Your task to perform on an android device: toggle wifi Image 0: 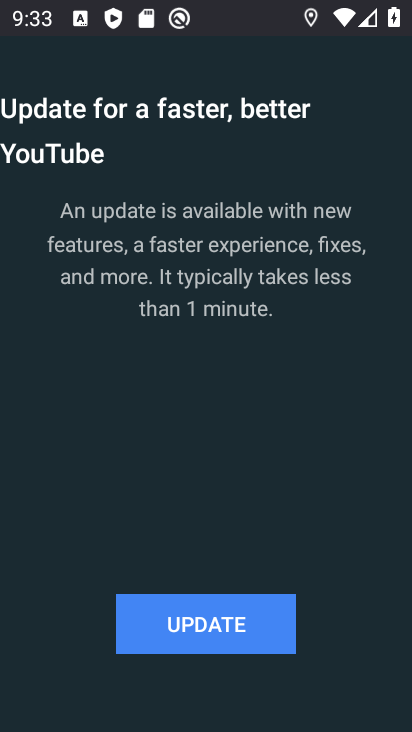
Step 0: press home button
Your task to perform on an android device: toggle wifi Image 1: 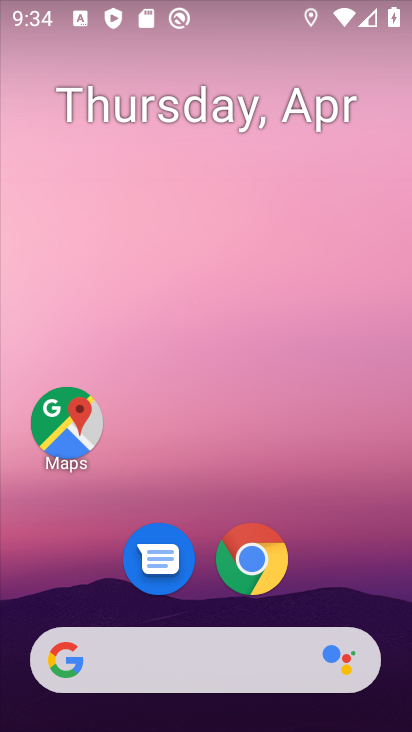
Step 1: drag from (230, 721) to (317, 3)
Your task to perform on an android device: toggle wifi Image 2: 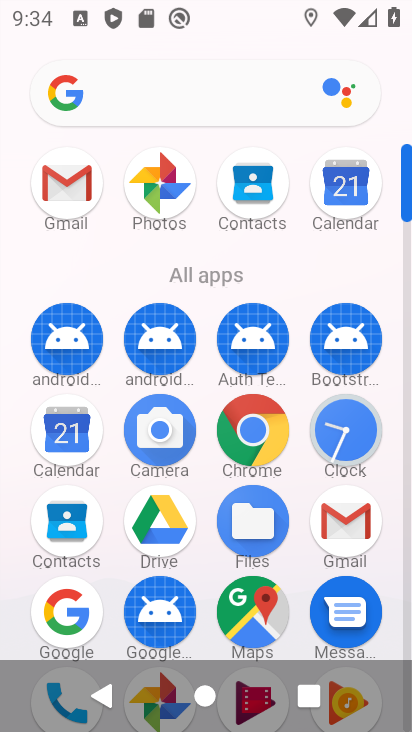
Step 2: drag from (267, 588) to (314, 46)
Your task to perform on an android device: toggle wifi Image 3: 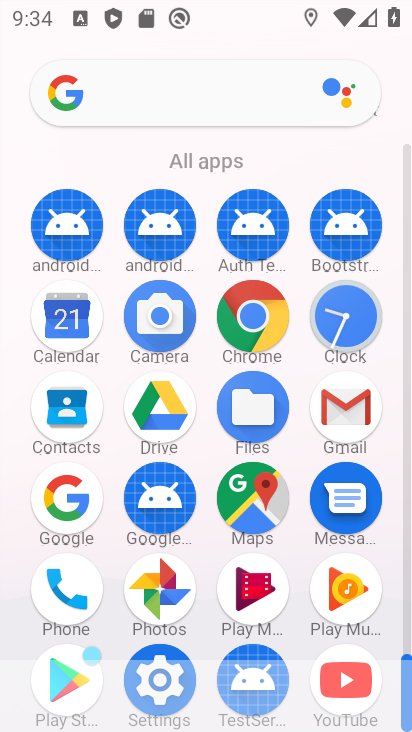
Step 3: click (161, 656)
Your task to perform on an android device: toggle wifi Image 4: 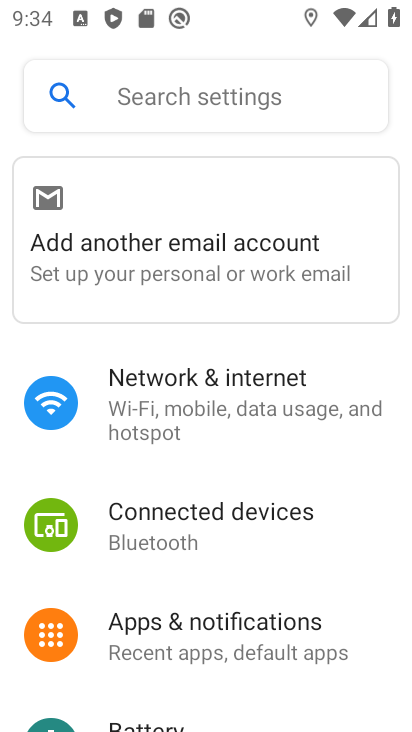
Step 4: click (209, 391)
Your task to perform on an android device: toggle wifi Image 5: 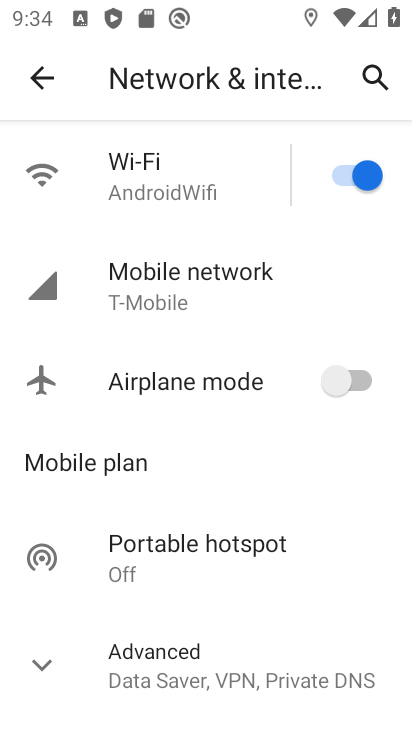
Step 5: click (150, 169)
Your task to perform on an android device: toggle wifi Image 6: 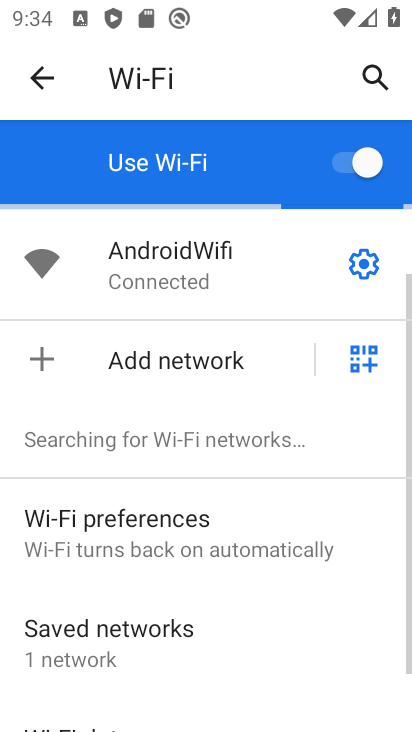
Step 6: click (371, 267)
Your task to perform on an android device: toggle wifi Image 7: 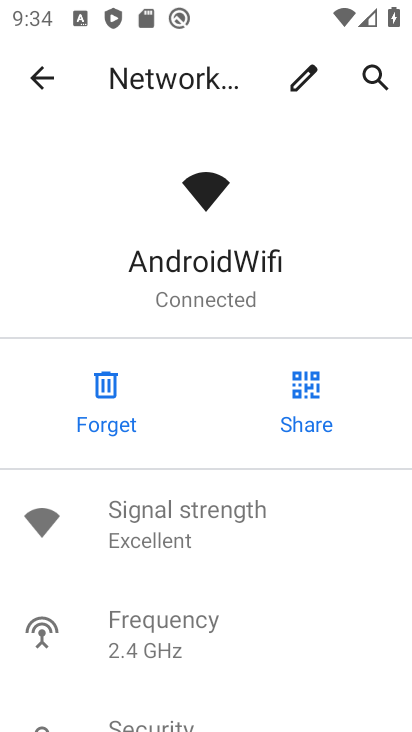
Step 7: click (37, 64)
Your task to perform on an android device: toggle wifi Image 8: 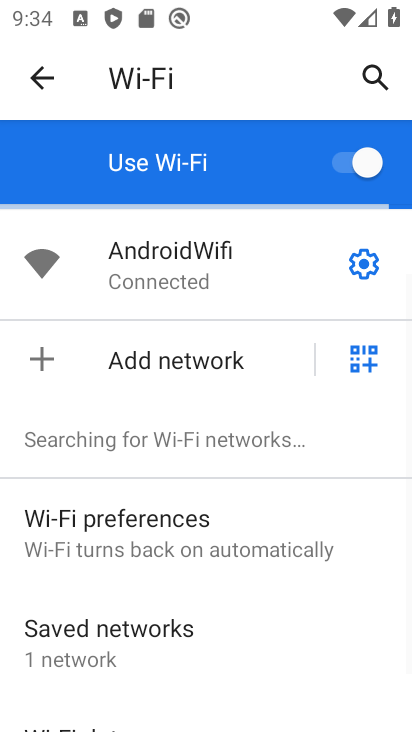
Step 8: click (345, 166)
Your task to perform on an android device: toggle wifi Image 9: 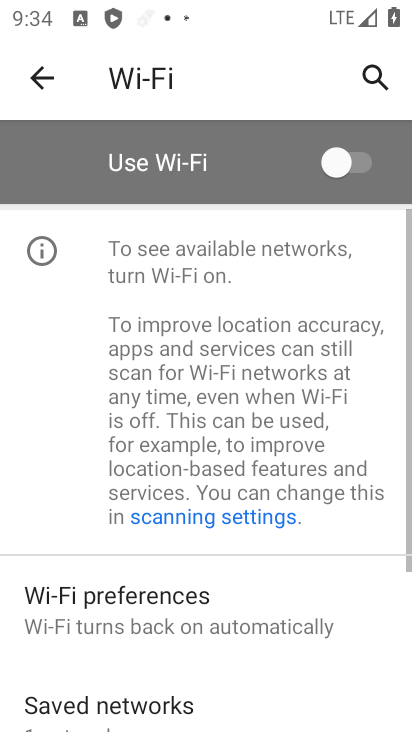
Step 9: task complete